Your task to perform on an android device: check the backup settings in the google photos Image 0: 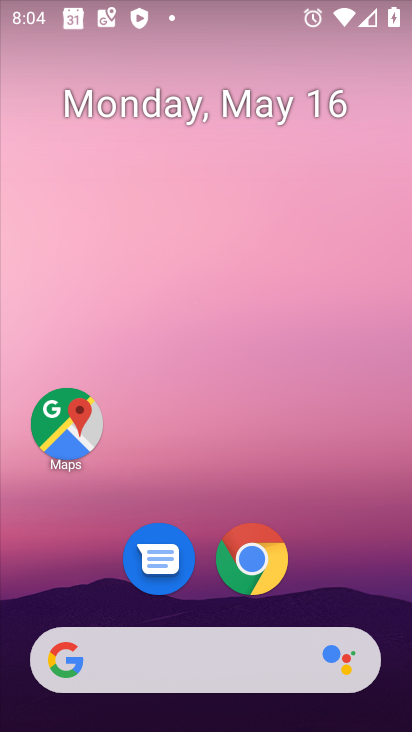
Step 0: drag from (347, 546) to (379, 193)
Your task to perform on an android device: check the backup settings in the google photos Image 1: 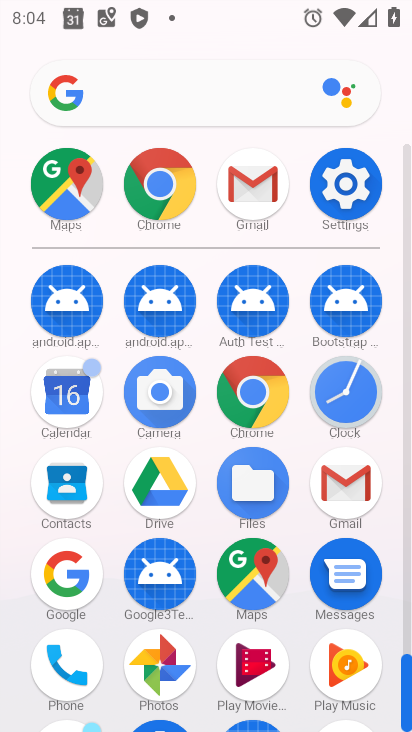
Step 1: click (172, 640)
Your task to perform on an android device: check the backup settings in the google photos Image 2: 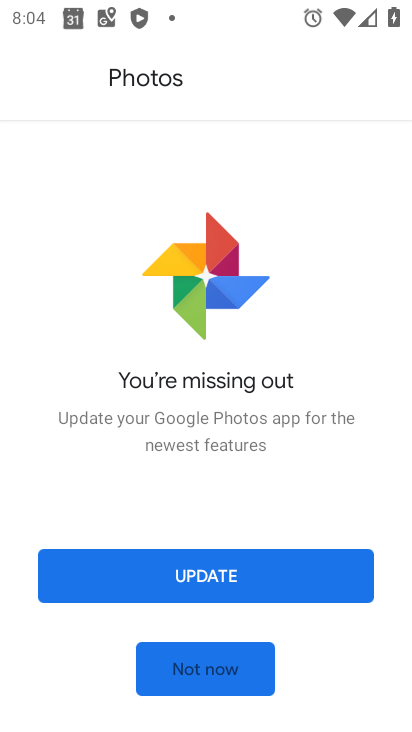
Step 2: click (270, 570)
Your task to perform on an android device: check the backup settings in the google photos Image 3: 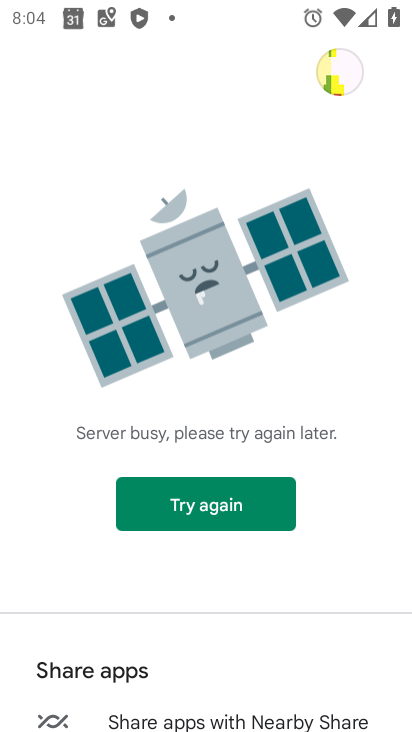
Step 3: task complete